Your task to perform on an android device: toggle javascript in the chrome app Image 0: 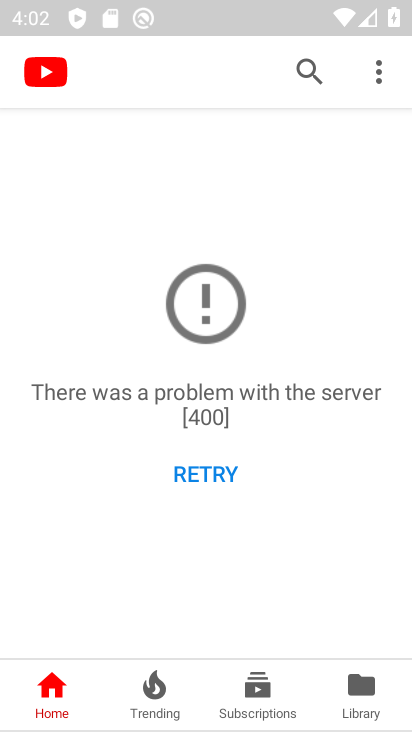
Step 0: press home button
Your task to perform on an android device: toggle javascript in the chrome app Image 1: 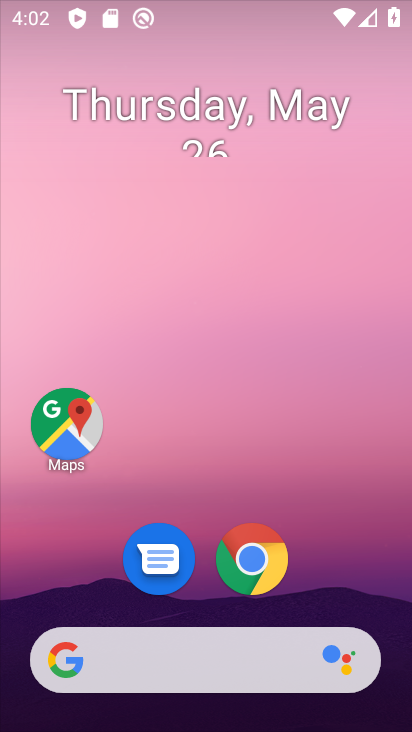
Step 1: click (255, 572)
Your task to perform on an android device: toggle javascript in the chrome app Image 2: 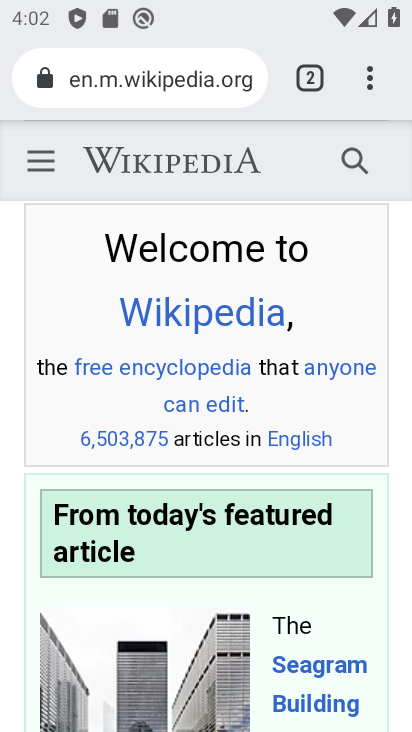
Step 2: click (364, 80)
Your task to perform on an android device: toggle javascript in the chrome app Image 3: 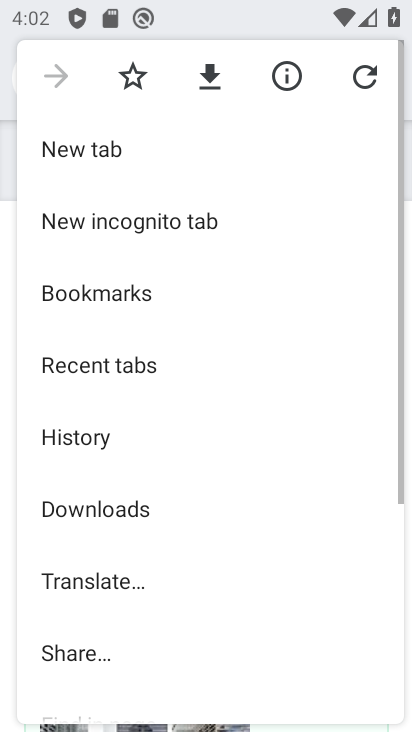
Step 3: drag from (233, 513) to (216, 85)
Your task to perform on an android device: toggle javascript in the chrome app Image 4: 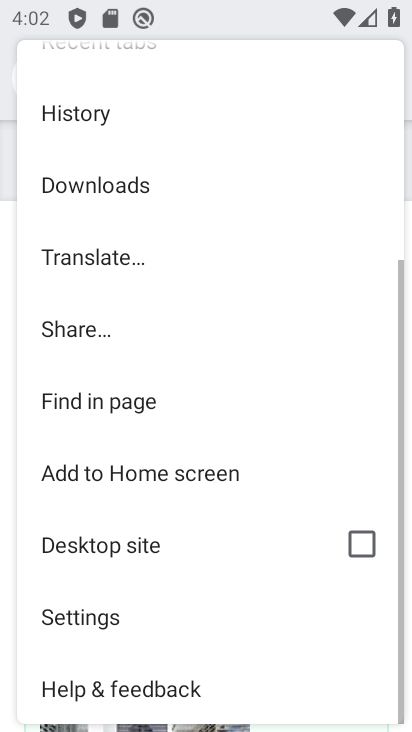
Step 4: click (146, 615)
Your task to perform on an android device: toggle javascript in the chrome app Image 5: 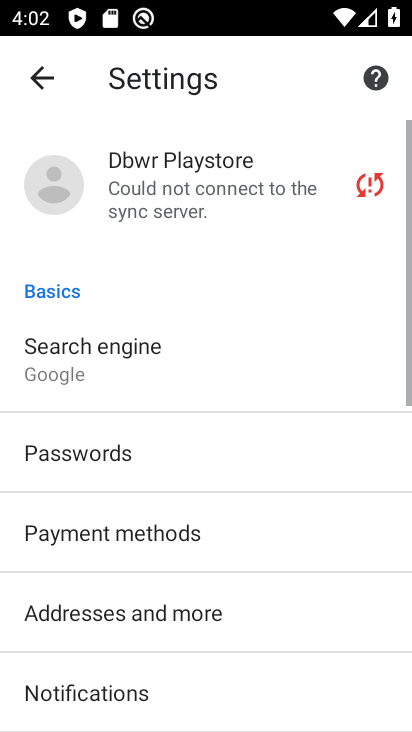
Step 5: drag from (226, 621) to (230, 110)
Your task to perform on an android device: toggle javascript in the chrome app Image 6: 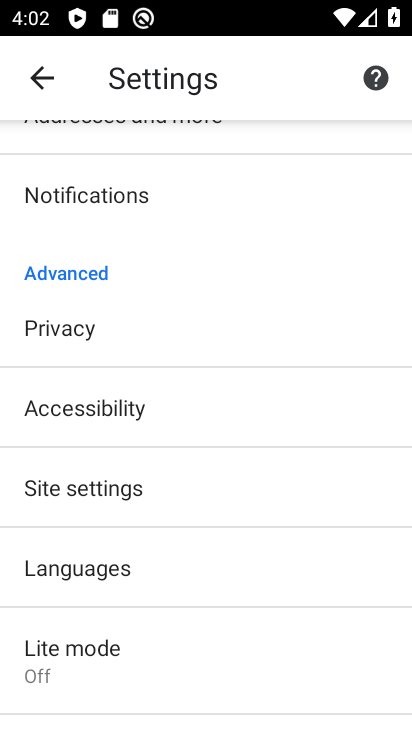
Step 6: click (125, 486)
Your task to perform on an android device: toggle javascript in the chrome app Image 7: 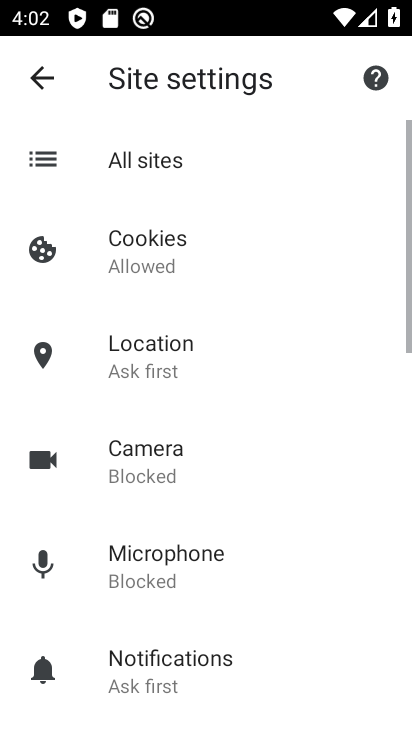
Step 7: drag from (212, 631) to (200, 201)
Your task to perform on an android device: toggle javascript in the chrome app Image 8: 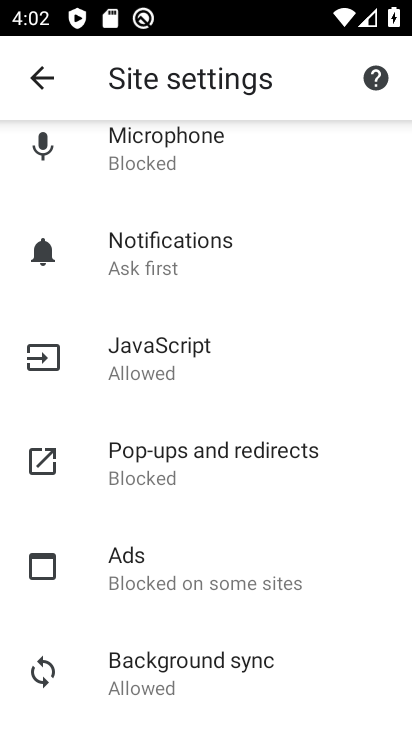
Step 8: click (175, 347)
Your task to perform on an android device: toggle javascript in the chrome app Image 9: 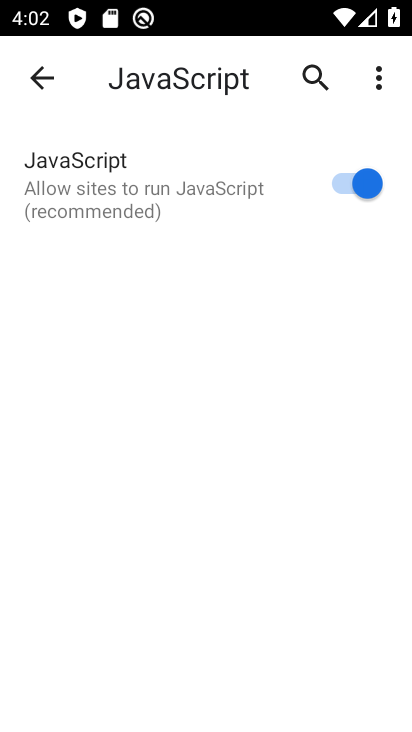
Step 9: click (357, 181)
Your task to perform on an android device: toggle javascript in the chrome app Image 10: 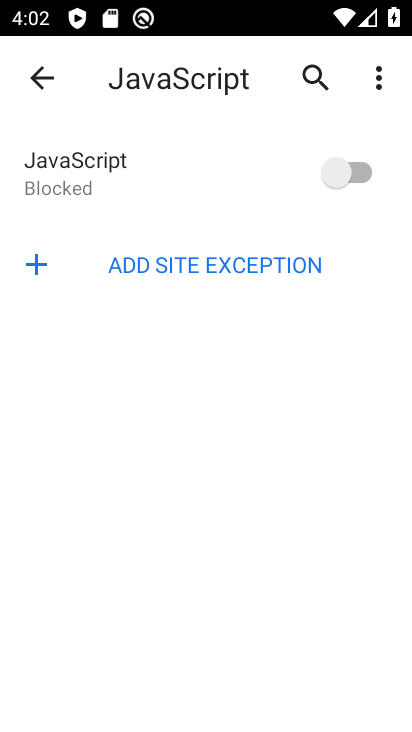
Step 10: task complete